Your task to perform on an android device: What's the US dollar exchange rate against the Brazilian Real? Image 0: 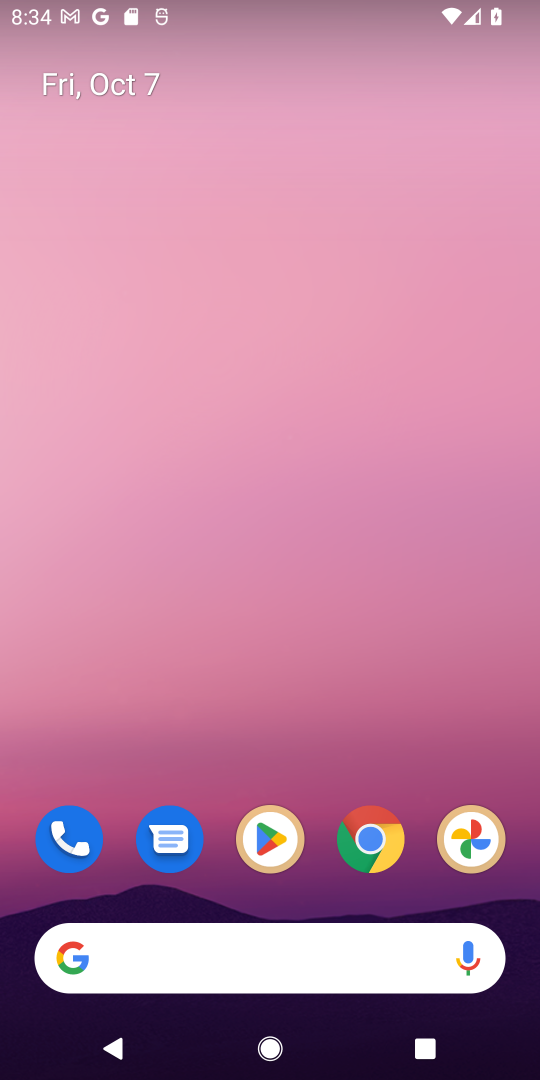
Step 0: click (378, 848)
Your task to perform on an android device: What's the US dollar exchange rate against the Brazilian Real? Image 1: 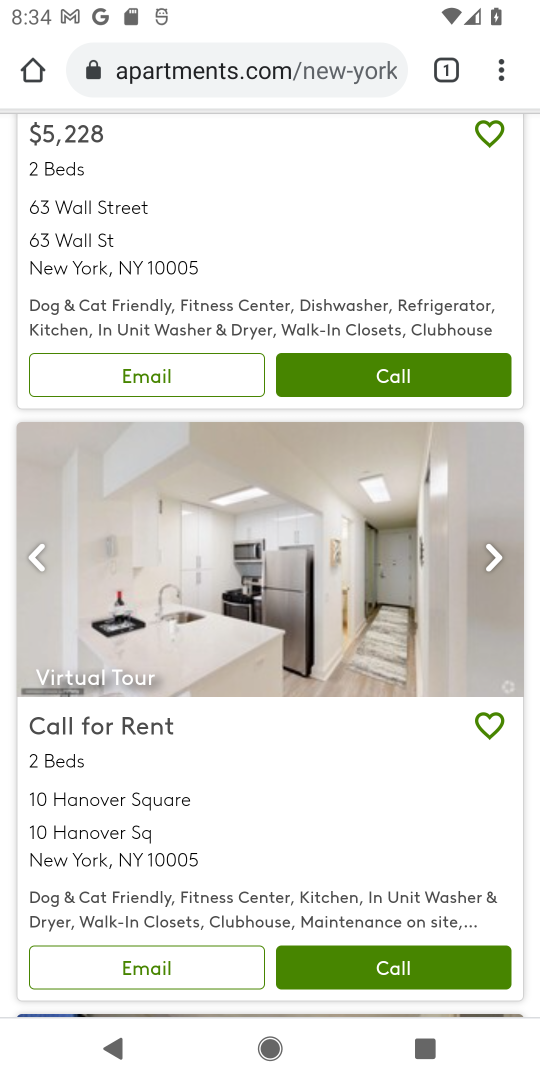
Step 1: click (280, 72)
Your task to perform on an android device: What's the US dollar exchange rate against the Brazilian Real? Image 2: 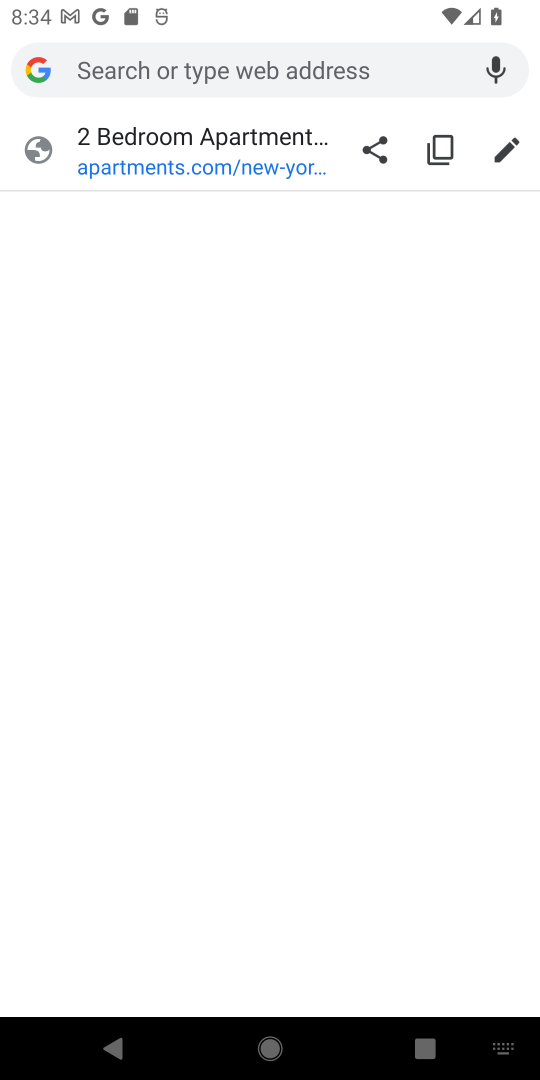
Step 2: type "us dollar exchange rate against the brazilian real"
Your task to perform on an android device: What's the US dollar exchange rate against the Brazilian Real? Image 3: 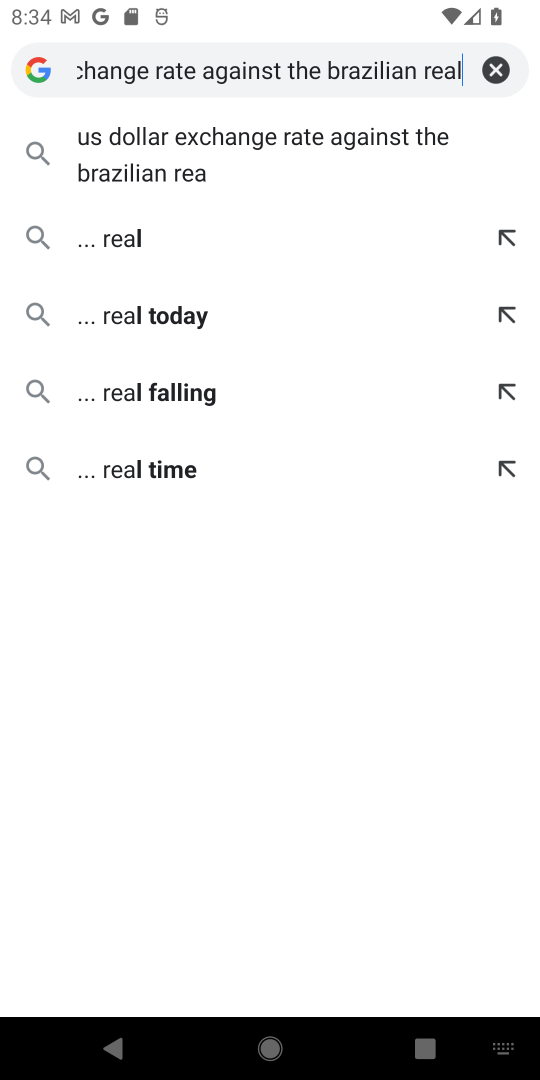
Step 3: type ""
Your task to perform on an android device: What's the US dollar exchange rate against the Brazilian Real? Image 4: 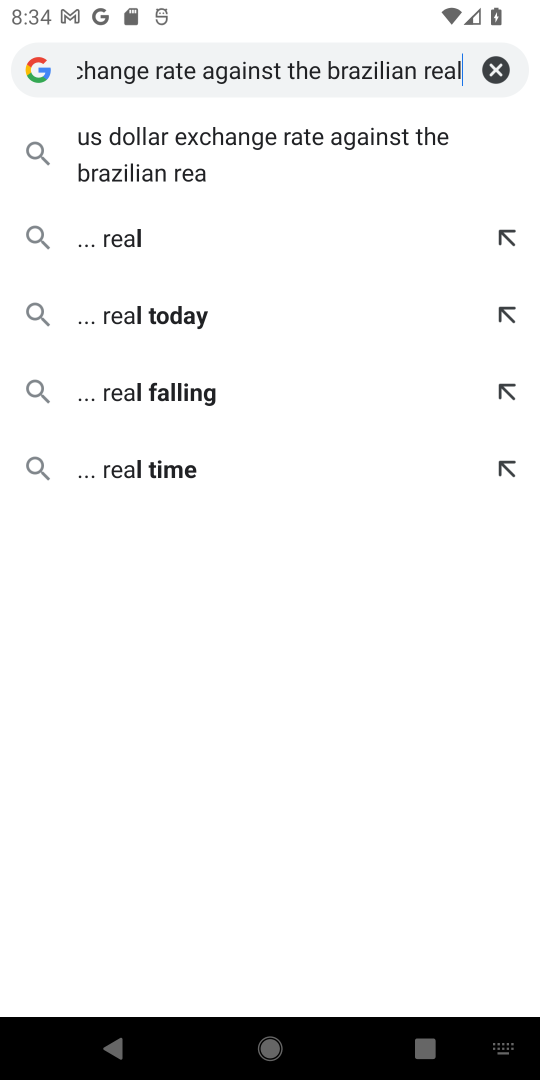
Step 4: click (263, 160)
Your task to perform on an android device: What's the US dollar exchange rate against the Brazilian Real? Image 5: 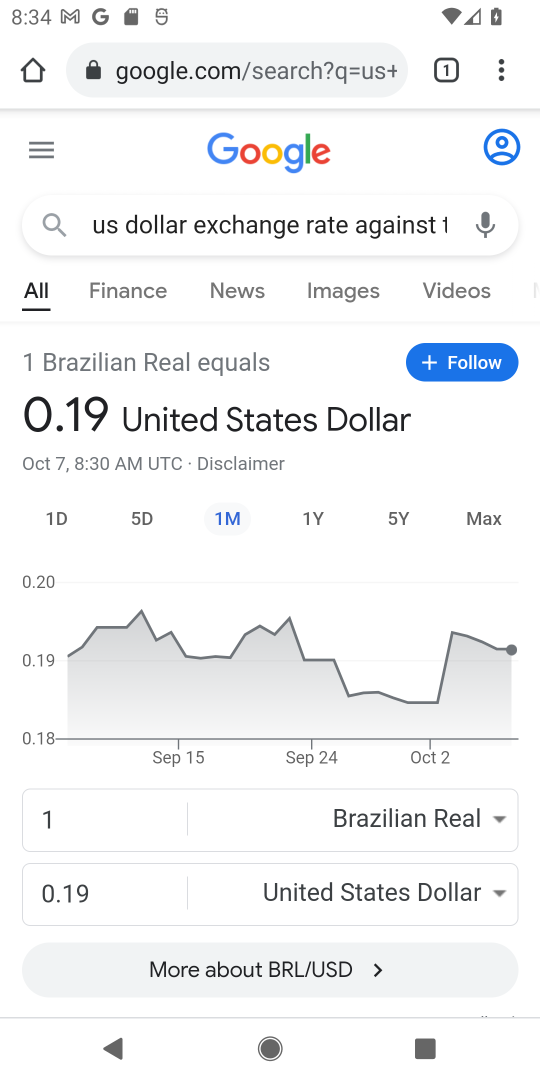
Step 5: drag from (225, 741) to (320, 167)
Your task to perform on an android device: What's the US dollar exchange rate against the Brazilian Real? Image 6: 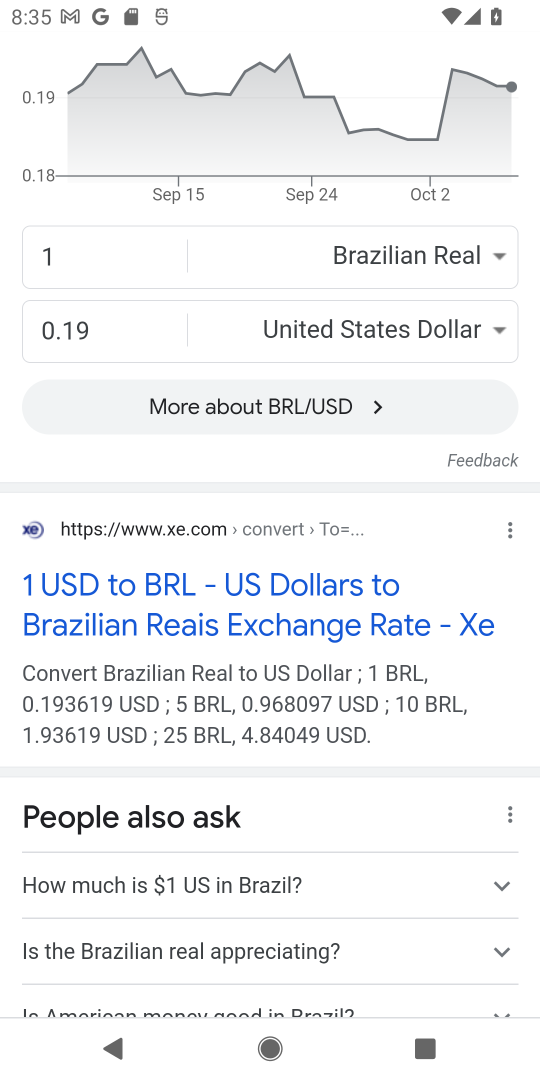
Step 6: click (288, 590)
Your task to perform on an android device: What's the US dollar exchange rate against the Brazilian Real? Image 7: 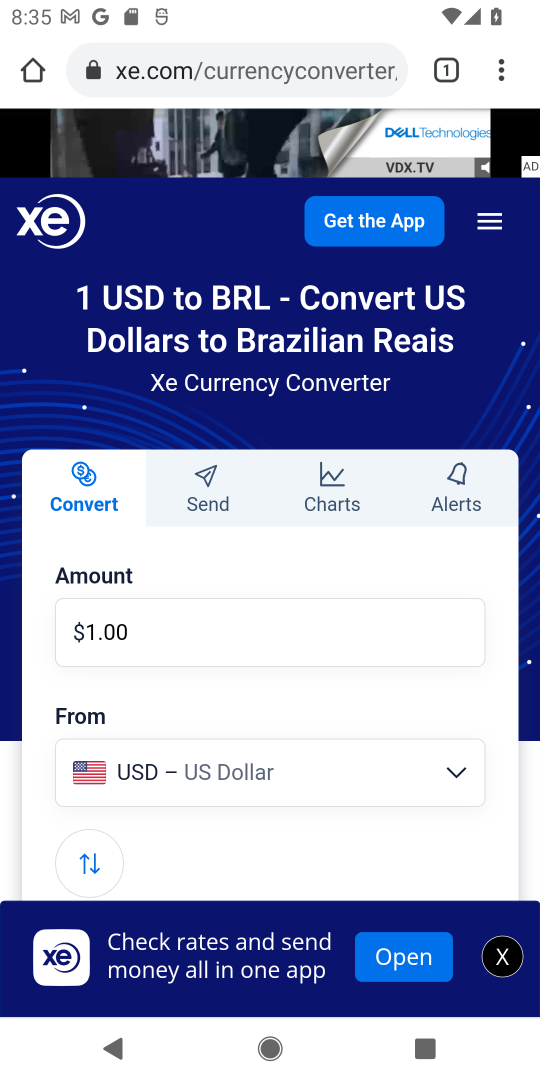
Step 7: drag from (276, 733) to (302, 309)
Your task to perform on an android device: What's the US dollar exchange rate against the Brazilian Real? Image 8: 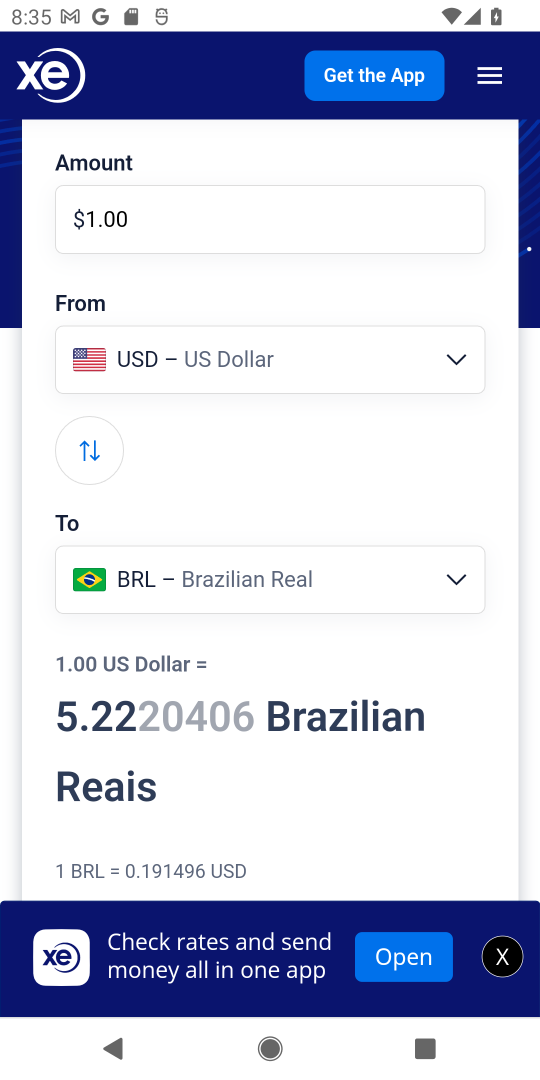
Step 8: drag from (283, 670) to (283, 260)
Your task to perform on an android device: What's the US dollar exchange rate against the Brazilian Real? Image 9: 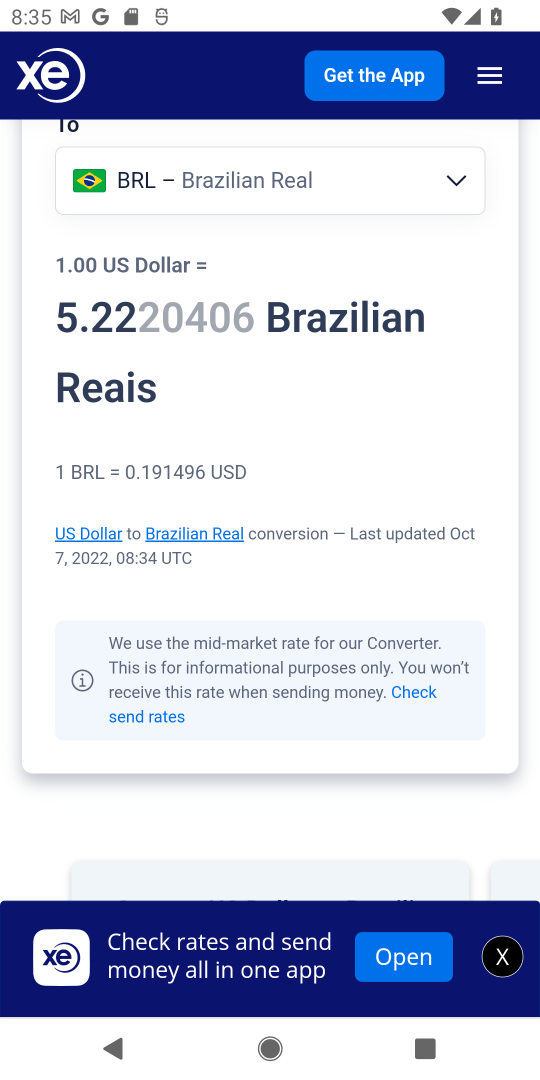
Step 9: click (504, 961)
Your task to perform on an android device: What's the US dollar exchange rate against the Brazilian Real? Image 10: 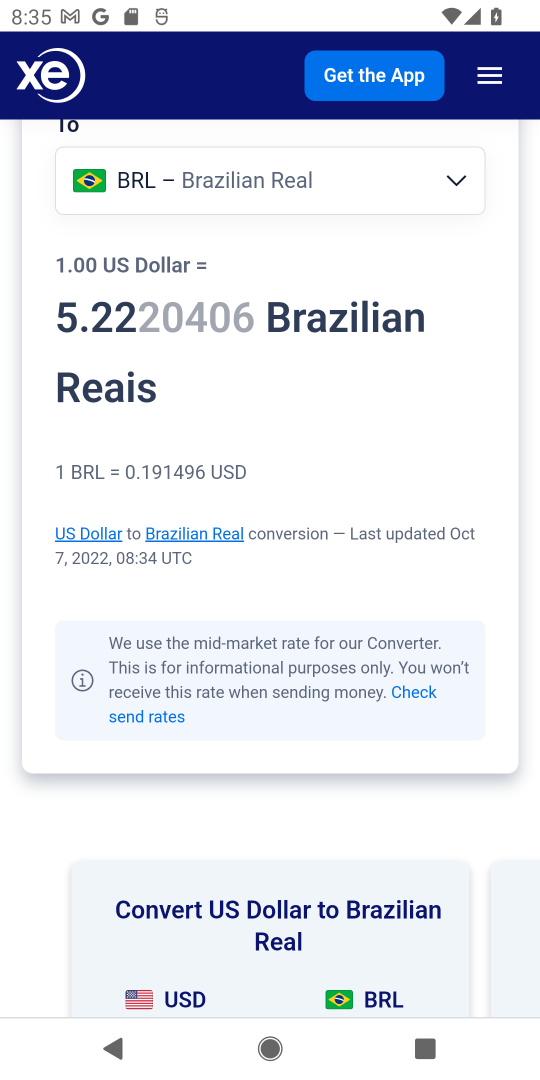
Step 10: task complete